Your task to perform on an android device: Open Amazon Image 0: 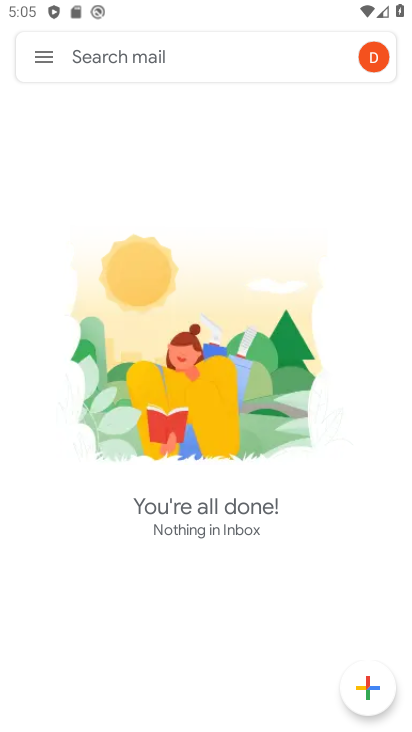
Step 0: press home button
Your task to perform on an android device: Open Amazon Image 1: 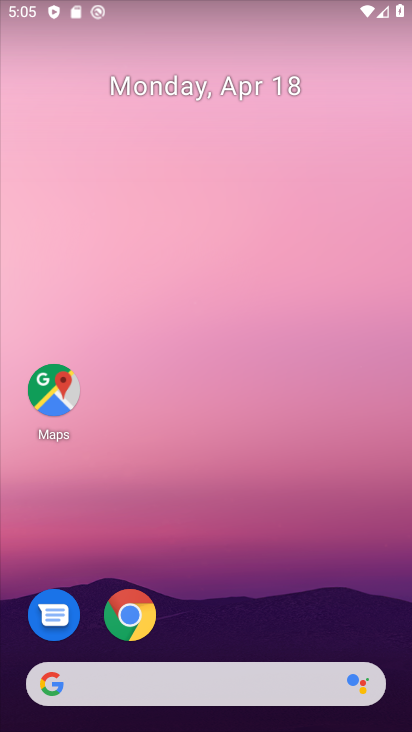
Step 1: drag from (310, 613) to (289, 218)
Your task to perform on an android device: Open Amazon Image 2: 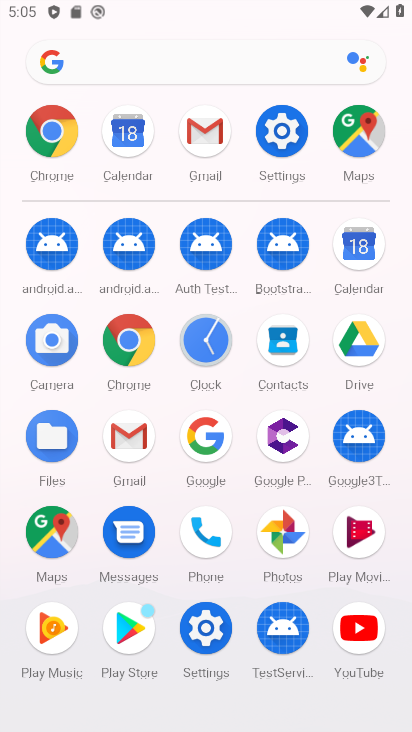
Step 2: click (59, 129)
Your task to perform on an android device: Open Amazon Image 3: 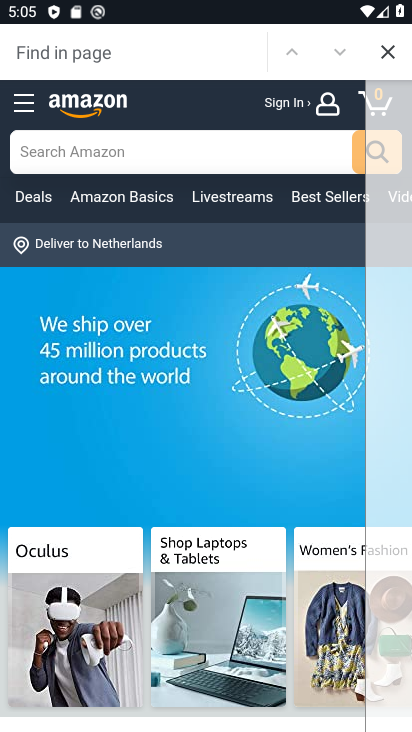
Step 3: click (387, 47)
Your task to perform on an android device: Open Amazon Image 4: 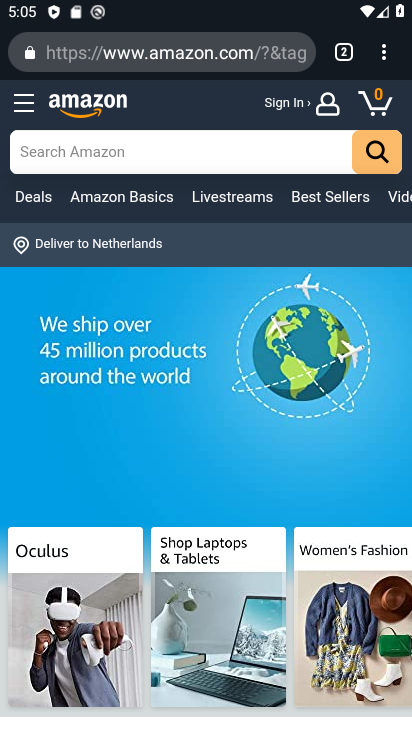
Step 4: task complete